Your task to perform on an android device: change the clock display to show seconds Image 0: 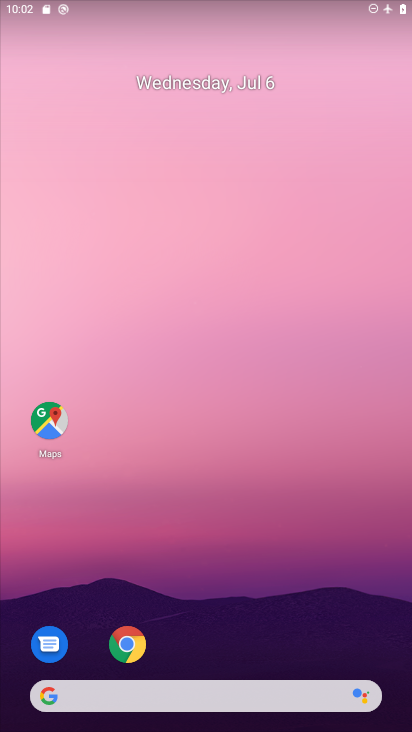
Step 0: drag from (200, 647) to (200, 252)
Your task to perform on an android device: change the clock display to show seconds Image 1: 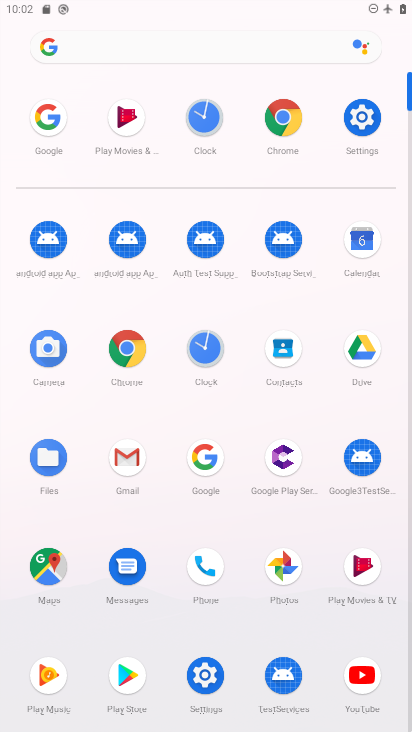
Step 1: click (217, 138)
Your task to perform on an android device: change the clock display to show seconds Image 2: 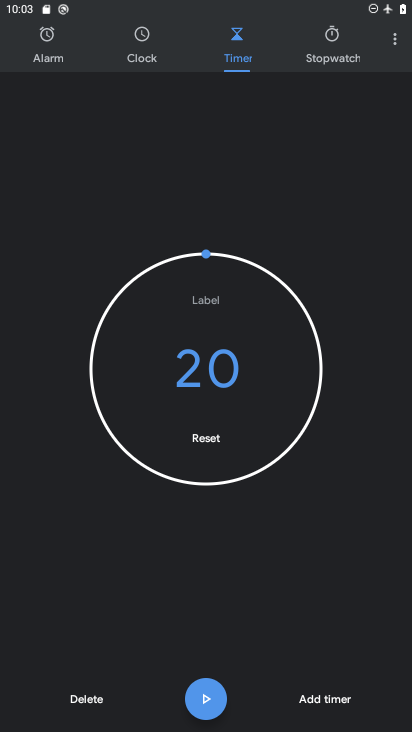
Step 2: click (393, 39)
Your task to perform on an android device: change the clock display to show seconds Image 3: 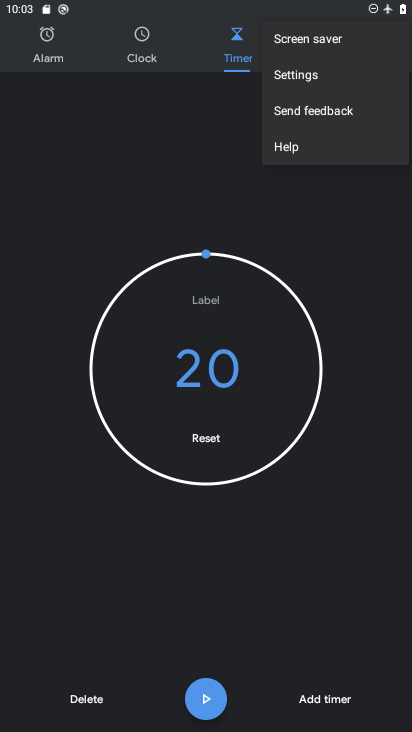
Step 3: click (315, 72)
Your task to perform on an android device: change the clock display to show seconds Image 4: 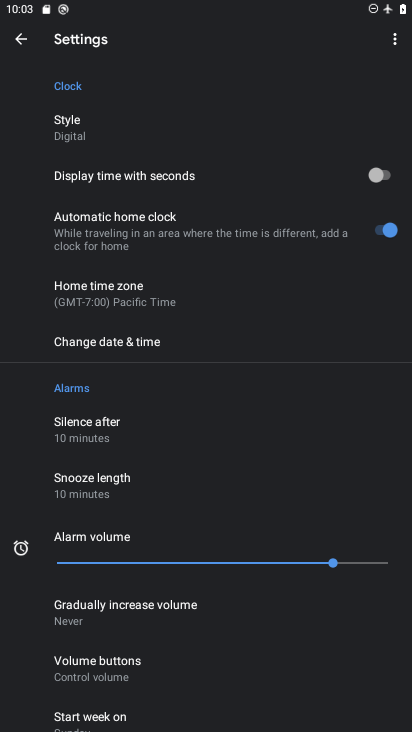
Step 4: click (380, 175)
Your task to perform on an android device: change the clock display to show seconds Image 5: 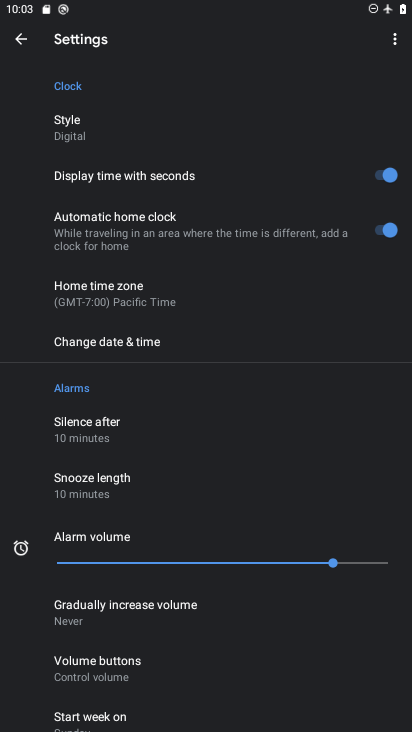
Step 5: task complete